Your task to perform on an android device: move an email to a new category in the gmail app Image 0: 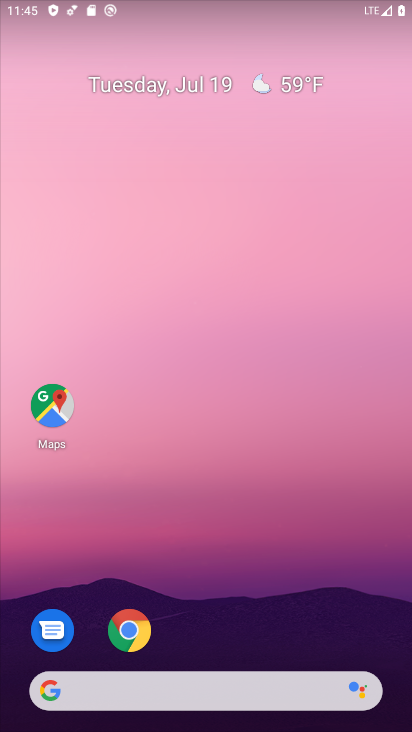
Step 0: drag from (262, 662) to (314, 208)
Your task to perform on an android device: move an email to a new category in the gmail app Image 1: 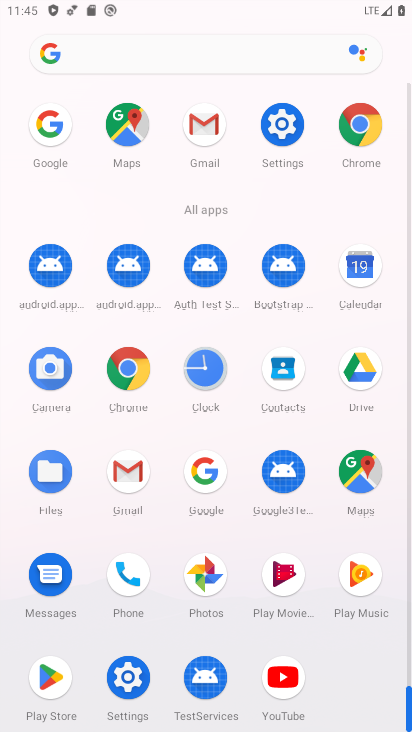
Step 1: click (131, 490)
Your task to perform on an android device: move an email to a new category in the gmail app Image 2: 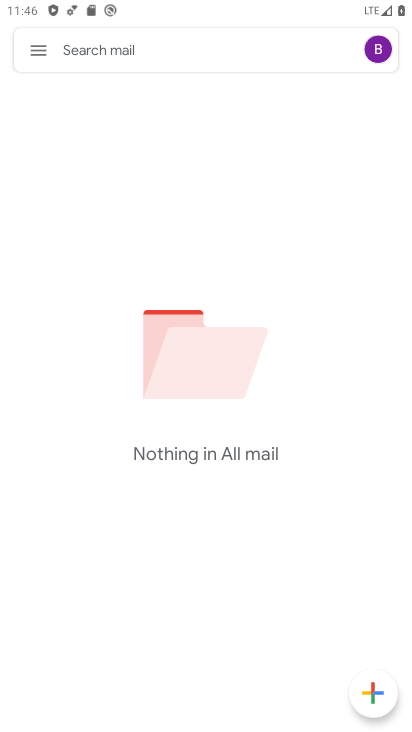
Step 2: click (37, 52)
Your task to perform on an android device: move an email to a new category in the gmail app Image 3: 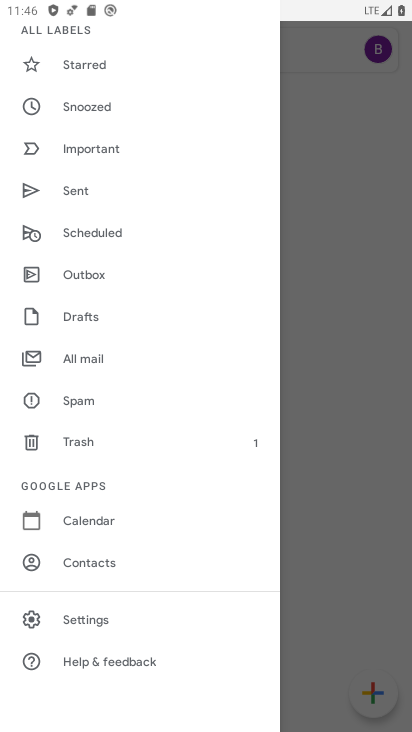
Step 3: click (87, 356)
Your task to perform on an android device: move an email to a new category in the gmail app Image 4: 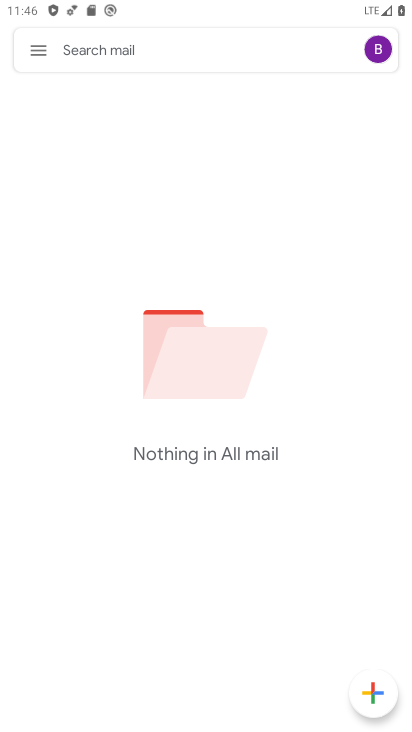
Step 4: task complete